Your task to perform on an android device: Open battery settings Image 0: 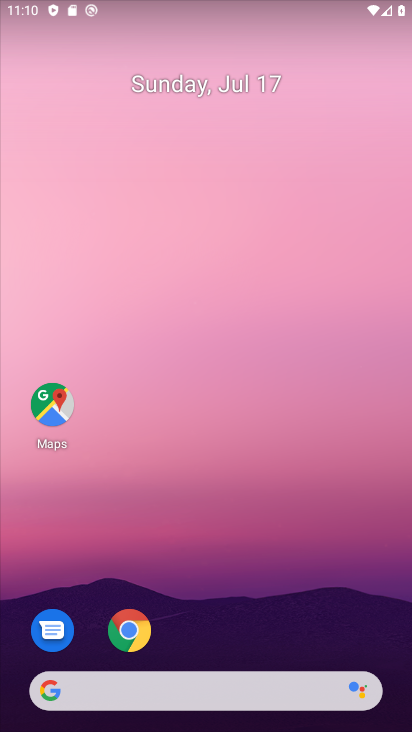
Step 0: drag from (220, 641) to (250, 117)
Your task to perform on an android device: Open battery settings Image 1: 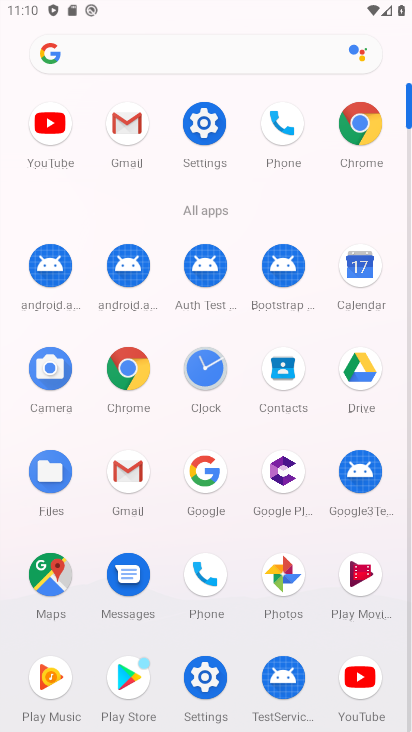
Step 1: click (209, 686)
Your task to perform on an android device: Open battery settings Image 2: 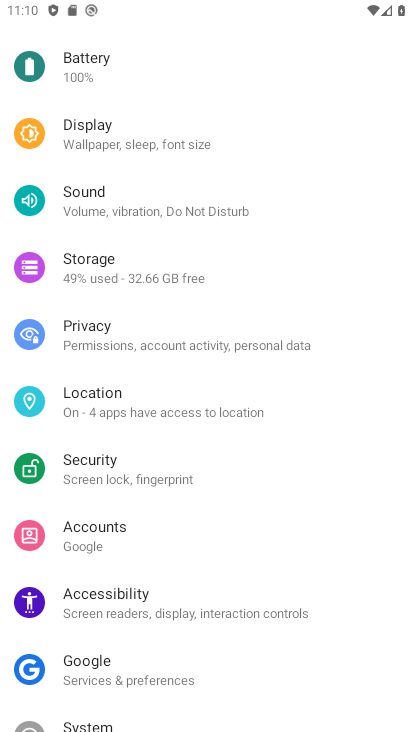
Step 2: click (82, 76)
Your task to perform on an android device: Open battery settings Image 3: 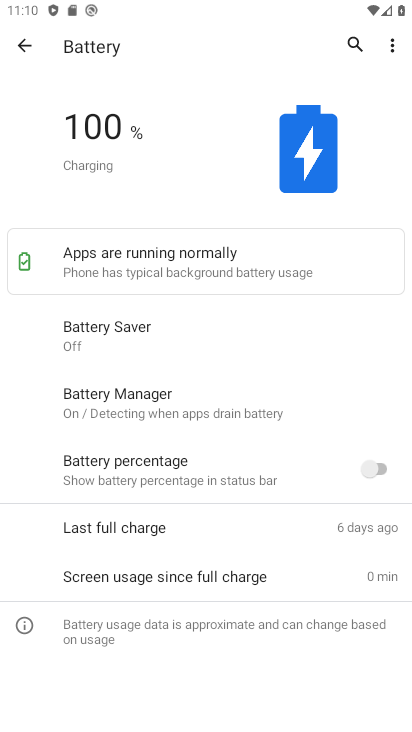
Step 3: task complete